Your task to perform on an android device: read, delete, or share a saved page in the chrome app Image 0: 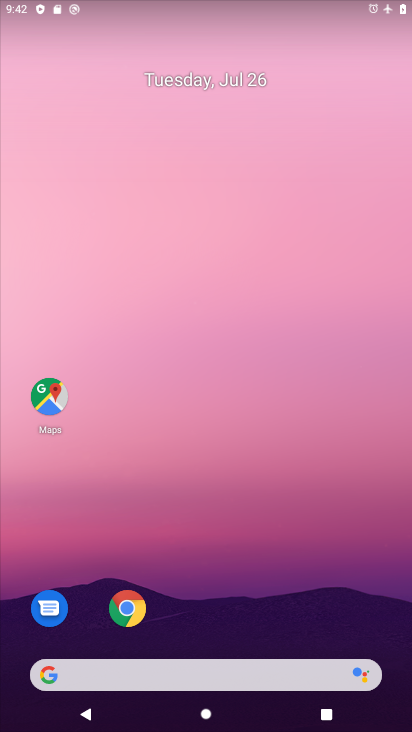
Step 0: drag from (230, 710) to (216, 310)
Your task to perform on an android device: read, delete, or share a saved page in the chrome app Image 1: 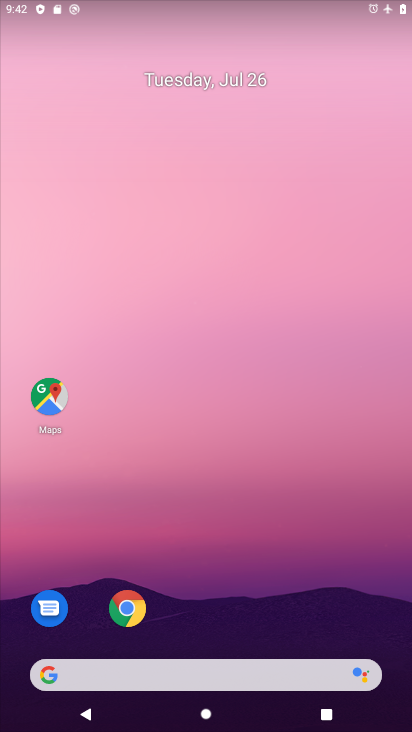
Step 1: click (127, 603)
Your task to perform on an android device: read, delete, or share a saved page in the chrome app Image 2: 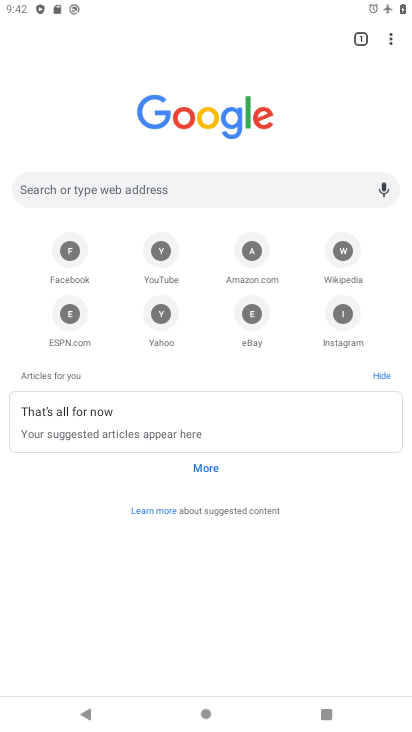
Step 2: click (388, 42)
Your task to perform on an android device: read, delete, or share a saved page in the chrome app Image 3: 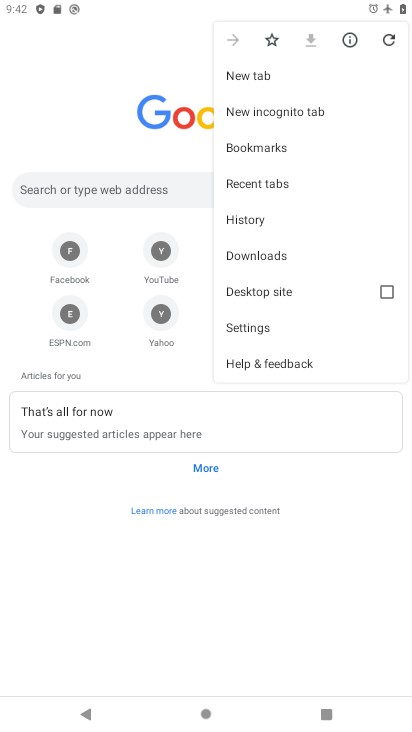
Step 3: click (248, 258)
Your task to perform on an android device: read, delete, or share a saved page in the chrome app Image 4: 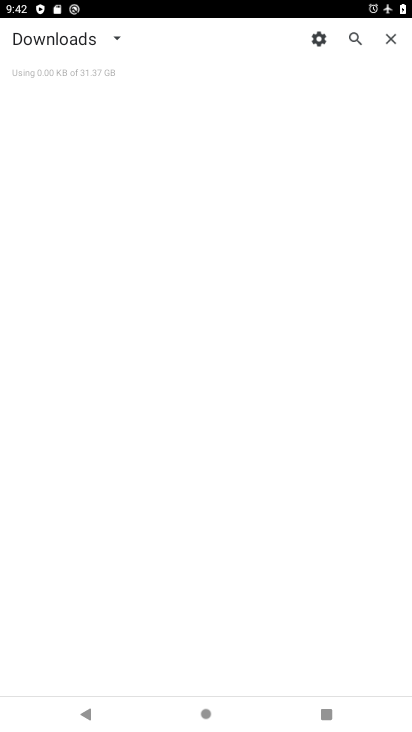
Step 4: click (113, 37)
Your task to perform on an android device: read, delete, or share a saved page in the chrome app Image 5: 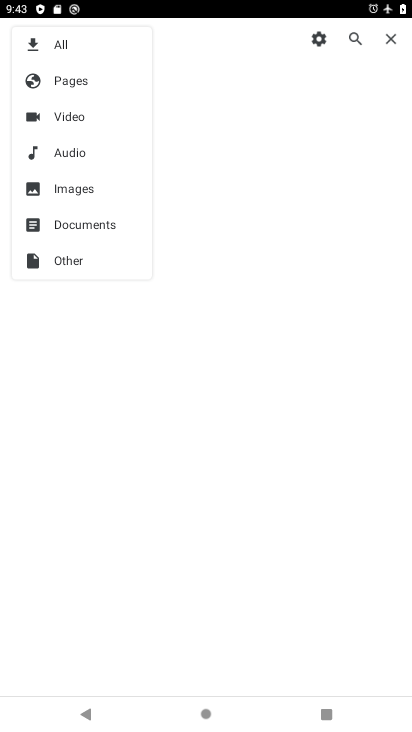
Step 5: click (69, 81)
Your task to perform on an android device: read, delete, or share a saved page in the chrome app Image 6: 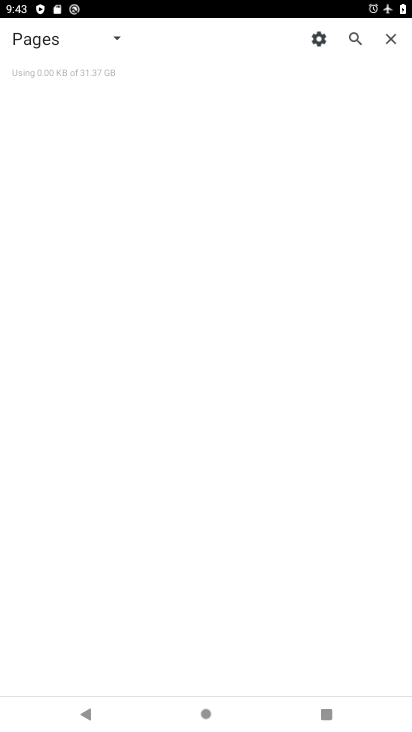
Step 6: task complete